Your task to perform on an android device: turn on priority inbox in the gmail app Image 0: 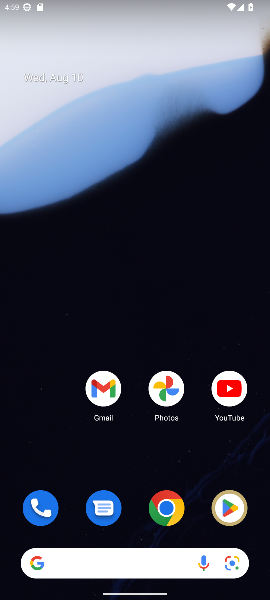
Step 0: press home button
Your task to perform on an android device: turn on priority inbox in the gmail app Image 1: 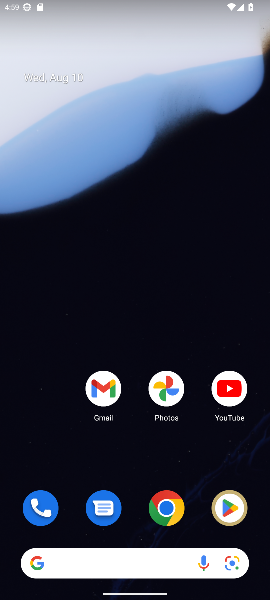
Step 1: click (105, 394)
Your task to perform on an android device: turn on priority inbox in the gmail app Image 2: 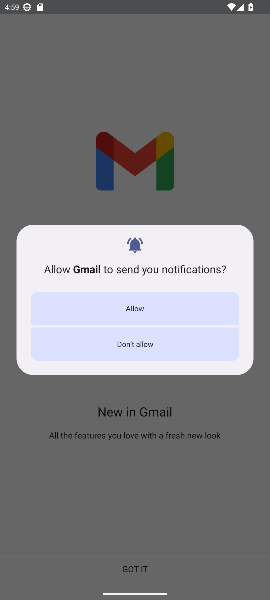
Step 2: click (128, 306)
Your task to perform on an android device: turn on priority inbox in the gmail app Image 3: 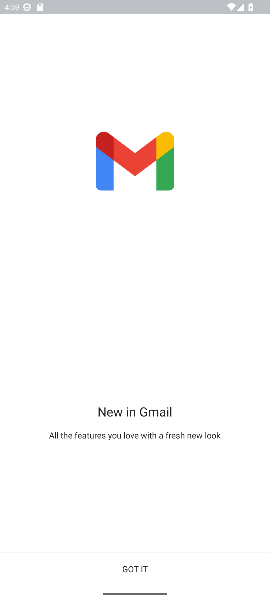
Step 3: click (137, 571)
Your task to perform on an android device: turn on priority inbox in the gmail app Image 4: 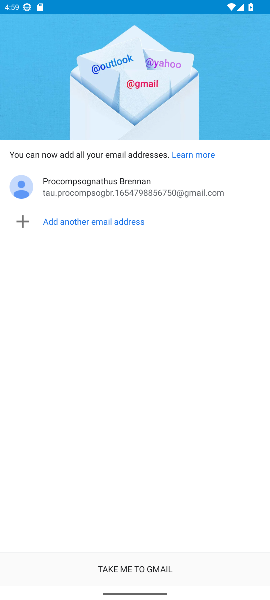
Step 4: click (137, 571)
Your task to perform on an android device: turn on priority inbox in the gmail app Image 5: 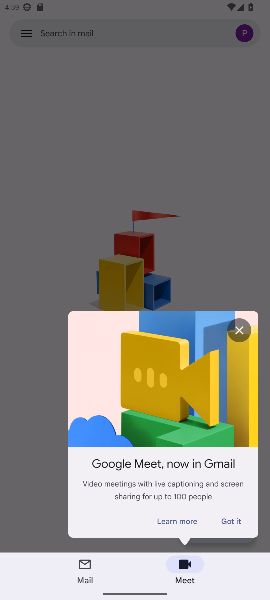
Step 5: click (240, 330)
Your task to perform on an android device: turn on priority inbox in the gmail app Image 6: 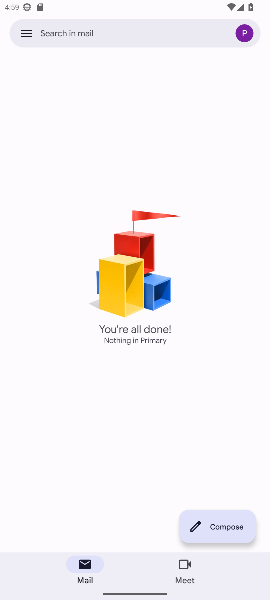
Step 6: click (22, 35)
Your task to perform on an android device: turn on priority inbox in the gmail app Image 7: 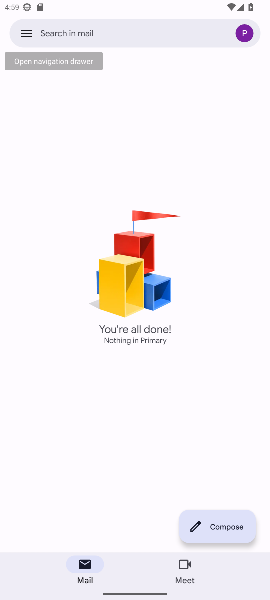
Step 7: click (22, 35)
Your task to perform on an android device: turn on priority inbox in the gmail app Image 8: 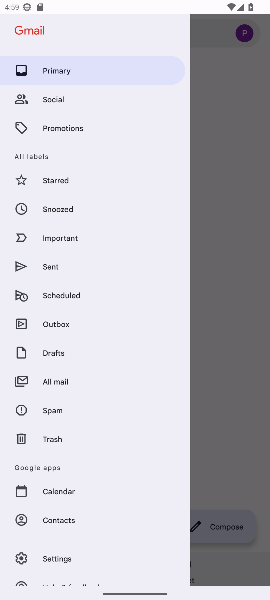
Step 8: click (61, 560)
Your task to perform on an android device: turn on priority inbox in the gmail app Image 9: 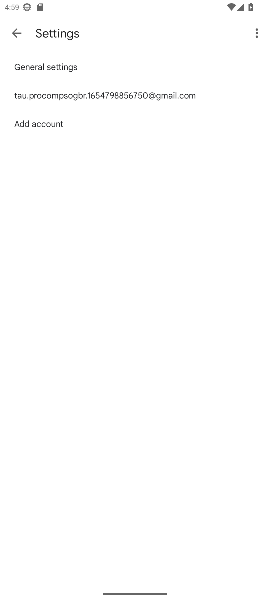
Step 9: click (101, 93)
Your task to perform on an android device: turn on priority inbox in the gmail app Image 10: 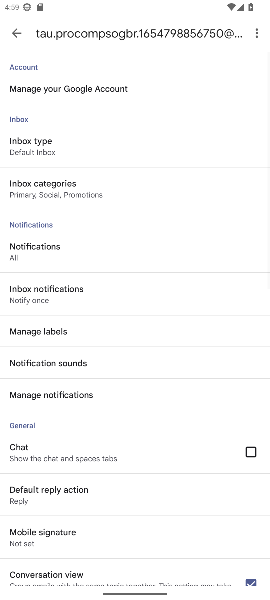
Step 10: click (20, 146)
Your task to perform on an android device: turn on priority inbox in the gmail app Image 11: 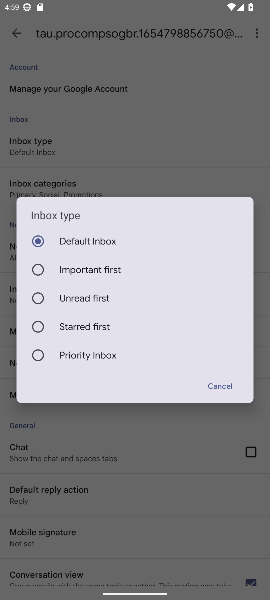
Step 11: click (33, 358)
Your task to perform on an android device: turn on priority inbox in the gmail app Image 12: 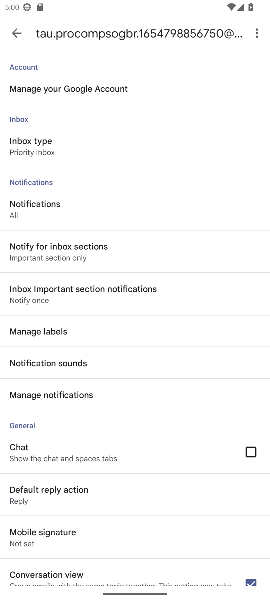
Step 12: task complete